Your task to perform on an android device: Look up the top rated headphones on Amazon. Image 0: 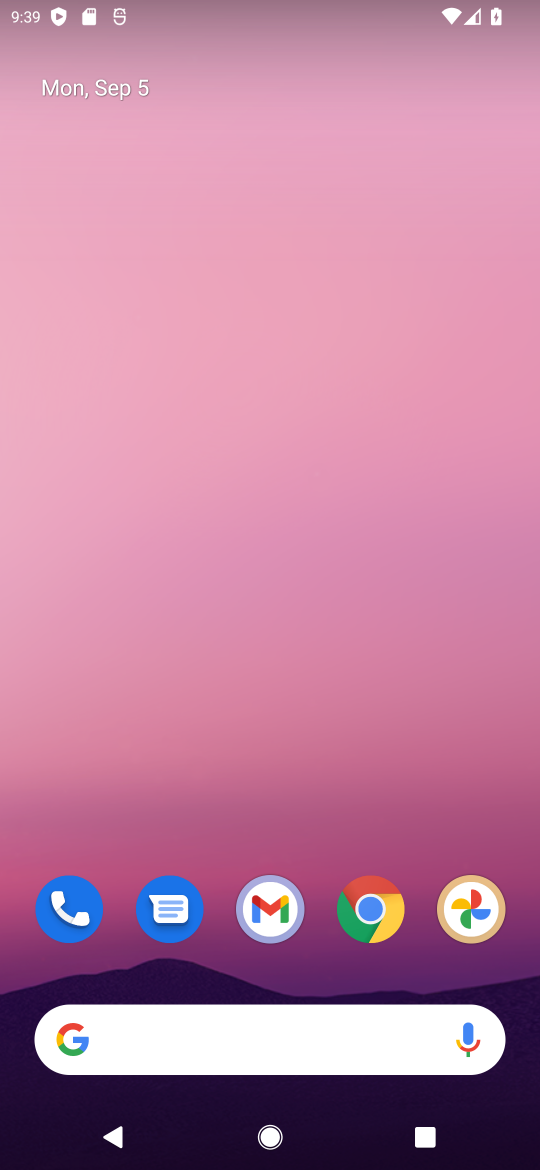
Step 0: click (258, 898)
Your task to perform on an android device: Look up the top rated headphones on Amazon. Image 1: 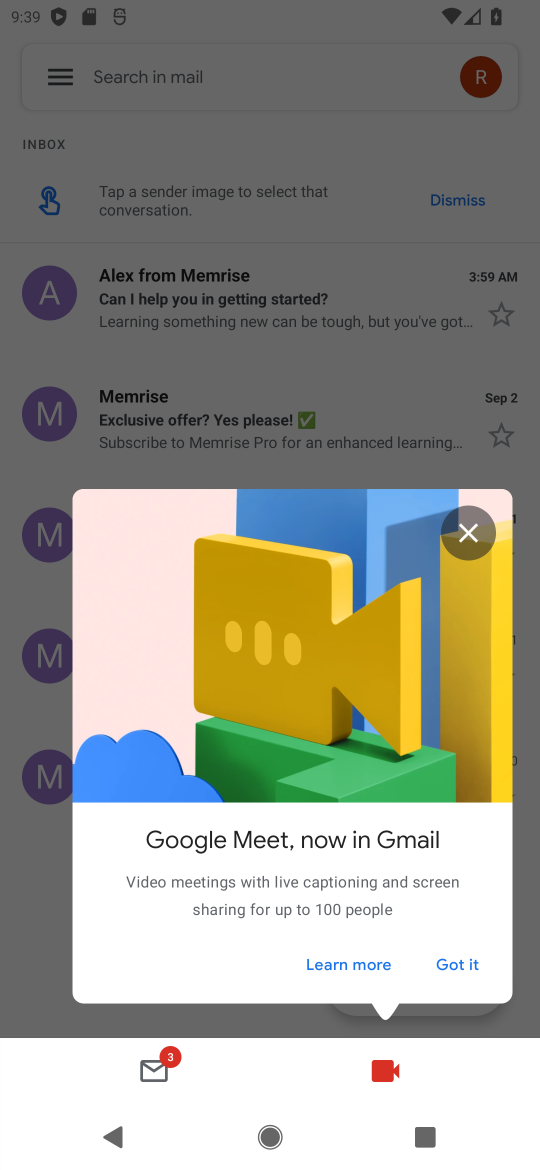
Step 1: task complete